Your task to perform on an android device: set the stopwatch Image 0: 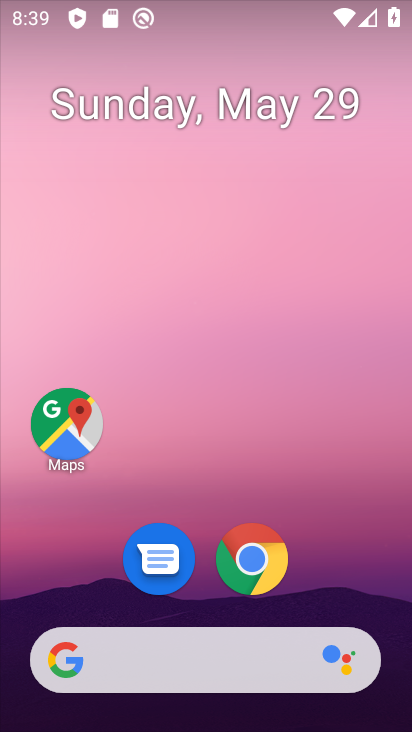
Step 0: drag from (310, 587) to (272, 213)
Your task to perform on an android device: set the stopwatch Image 1: 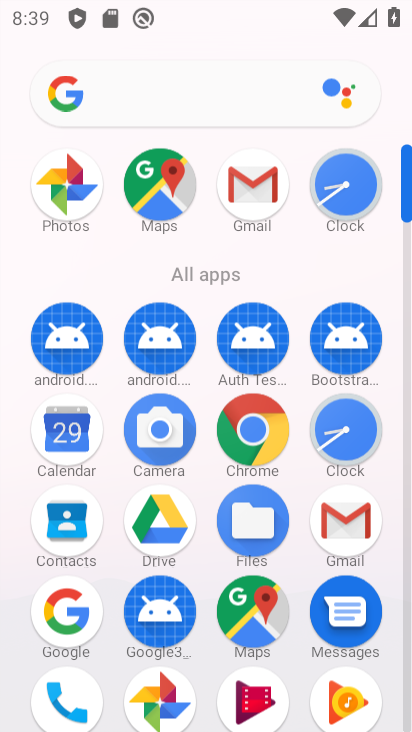
Step 1: drag from (188, 545) to (188, 464)
Your task to perform on an android device: set the stopwatch Image 2: 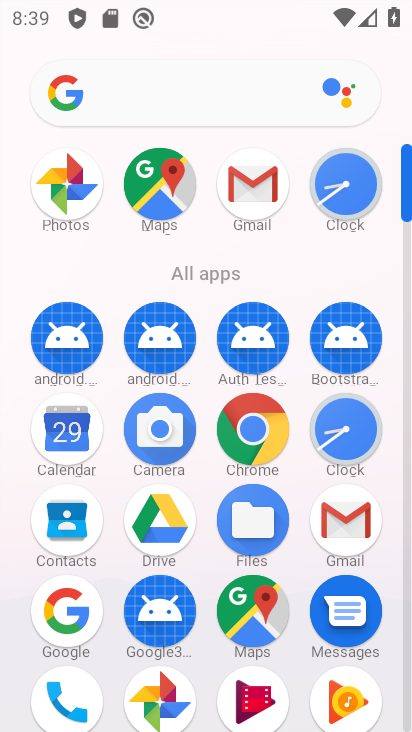
Step 2: click (333, 432)
Your task to perform on an android device: set the stopwatch Image 3: 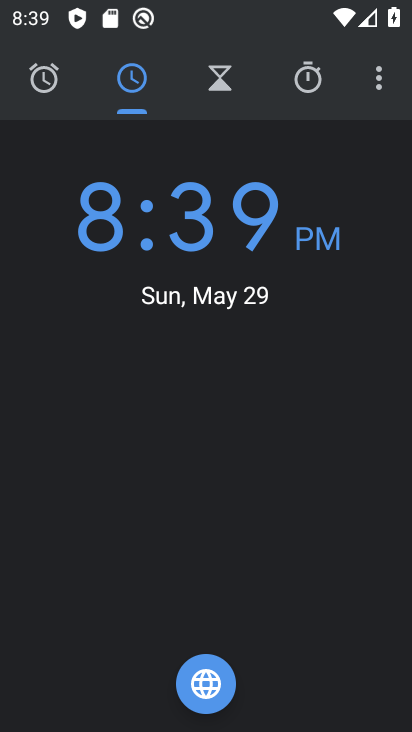
Step 3: click (304, 54)
Your task to perform on an android device: set the stopwatch Image 4: 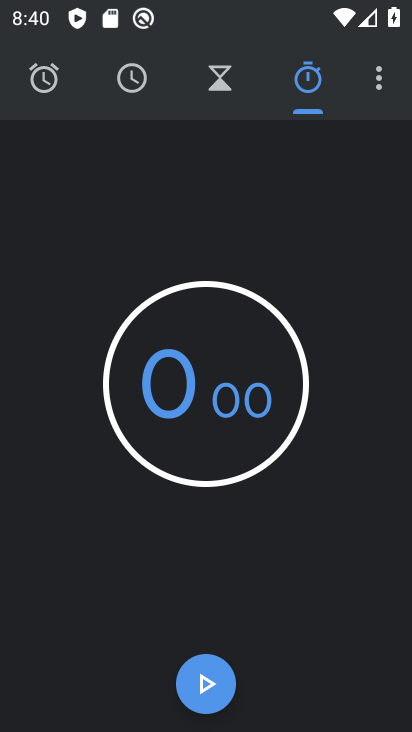
Step 4: task complete